Your task to perform on an android device: delete the emails in spam in the gmail app Image 0: 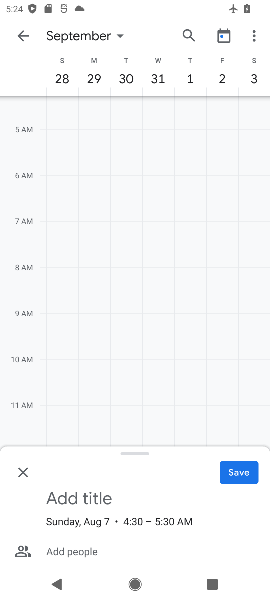
Step 0: press home button
Your task to perform on an android device: delete the emails in spam in the gmail app Image 1: 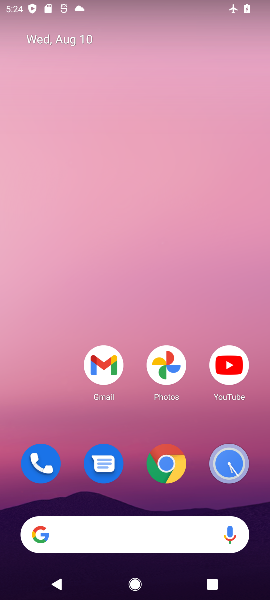
Step 1: click (106, 360)
Your task to perform on an android device: delete the emails in spam in the gmail app Image 2: 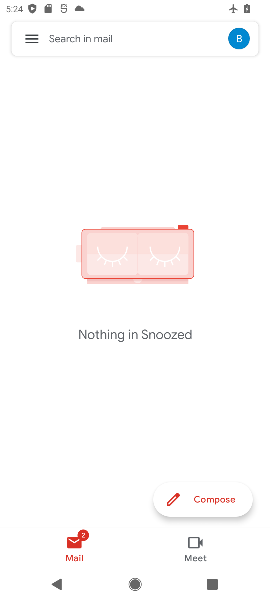
Step 2: click (30, 34)
Your task to perform on an android device: delete the emails in spam in the gmail app Image 3: 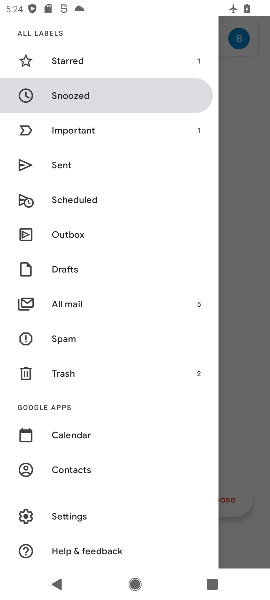
Step 3: click (75, 333)
Your task to perform on an android device: delete the emails in spam in the gmail app Image 4: 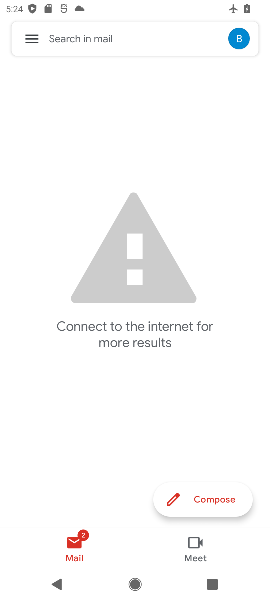
Step 4: click (27, 42)
Your task to perform on an android device: delete the emails in spam in the gmail app Image 5: 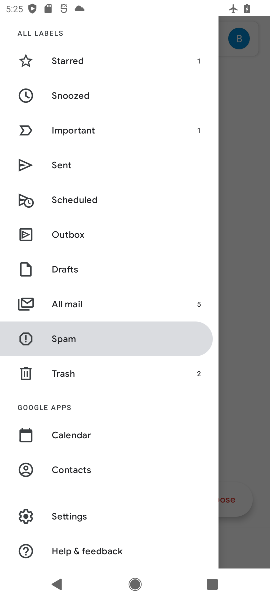
Step 5: click (102, 336)
Your task to perform on an android device: delete the emails in spam in the gmail app Image 6: 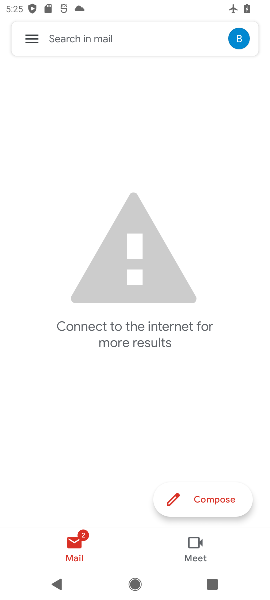
Step 6: task complete